Your task to perform on an android device: Go to notification settings Image 0: 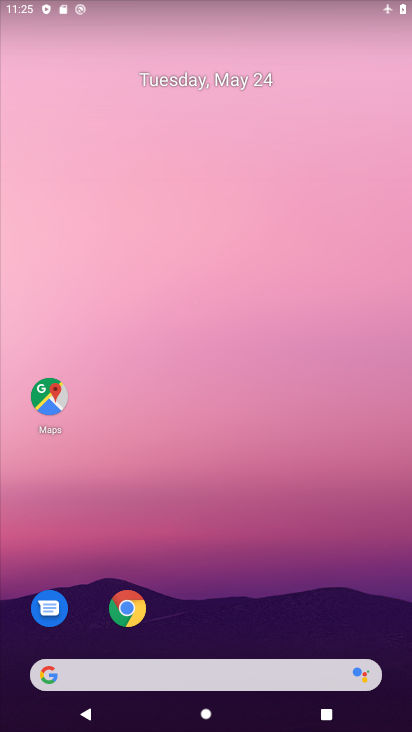
Step 0: drag from (274, 603) to (180, 38)
Your task to perform on an android device: Go to notification settings Image 1: 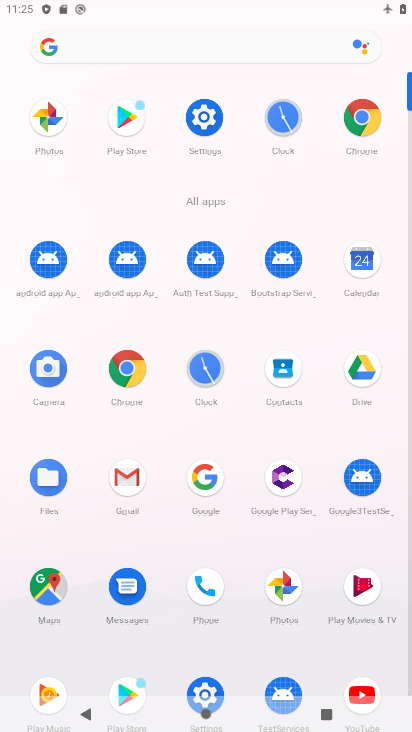
Step 1: click (206, 685)
Your task to perform on an android device: Go to notification settings Image 2: 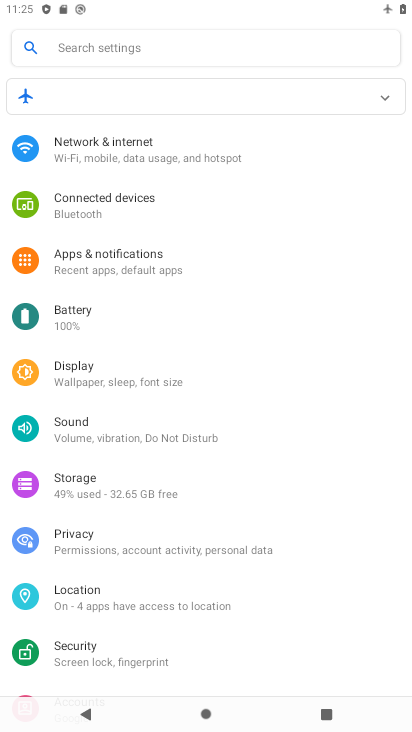
Step 2: click (198, 288)
Your task to perform on an android device: Go to notification settings Image 3: 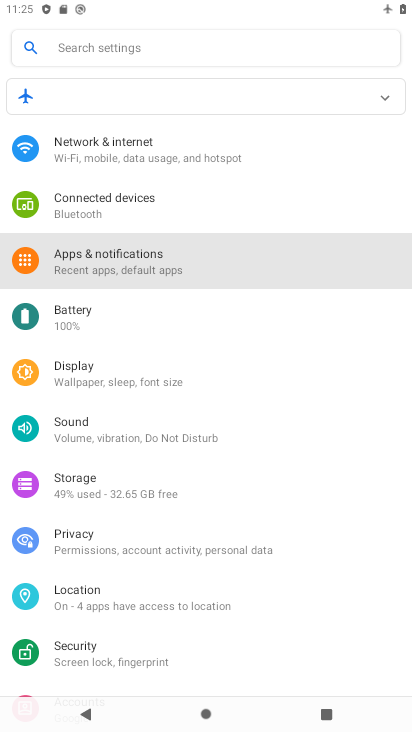
Step 3: task complete